Your task to perform on an android device: refresh tabs in the chrome app Image 0: 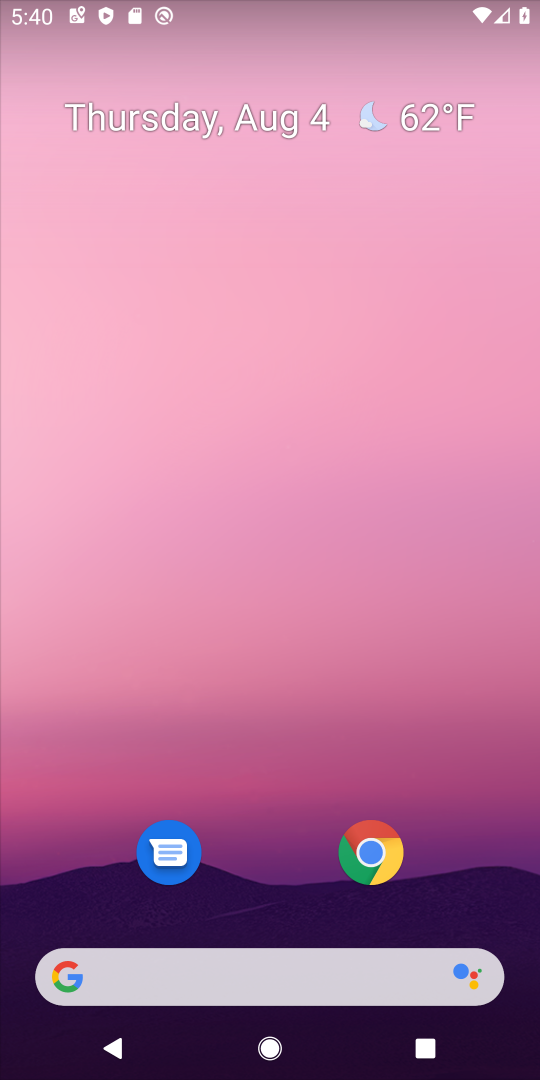
Step 0: click (370, 852)
Your task to perform on an android device: refresh tabs in the chrome app Image 1: 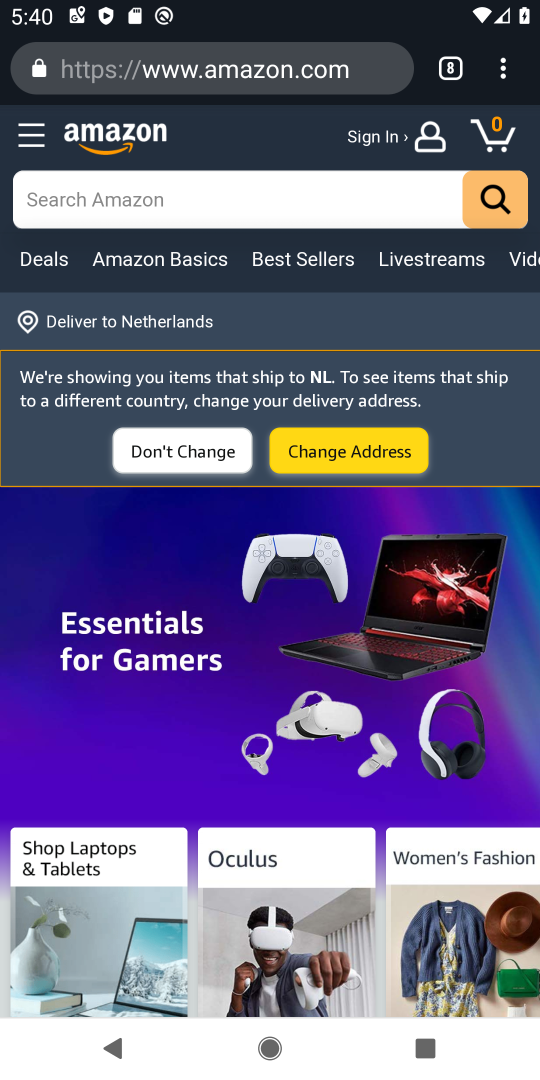
Step 1: click (504, 84)
Your task to perform on an android device: refresh tabs in the chrome app Image 2: 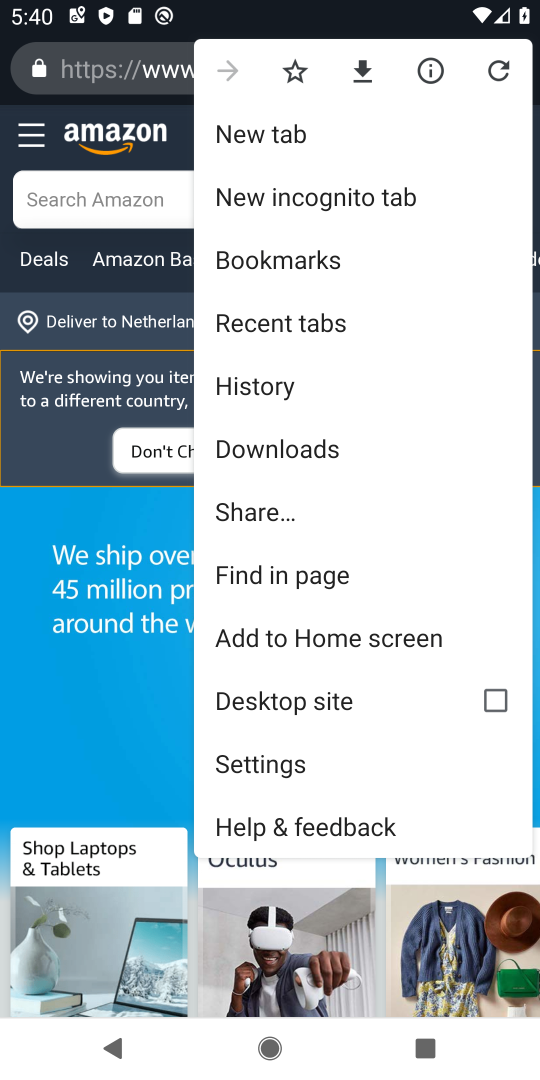
Step 2: click (498, 58)
Your task to perform on an android device: refresh tabs in the chrome app Image 3: 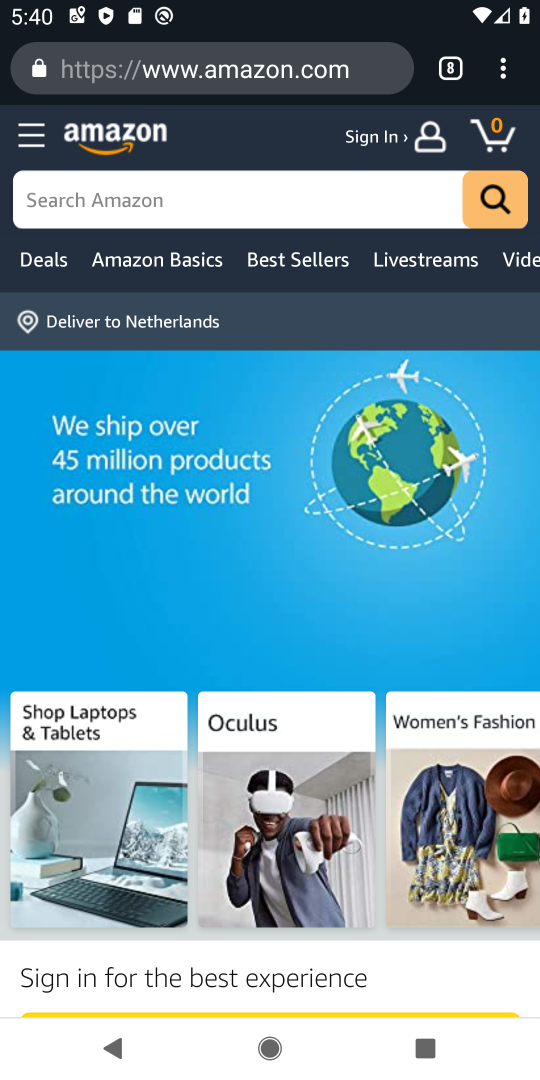
Step 3: task complete